Your task to perform on an android device: Clear the shopping cart on costco.com. Search for "logitech g903" on costco.com, select the first entry, and add it to the cart. Image 0: 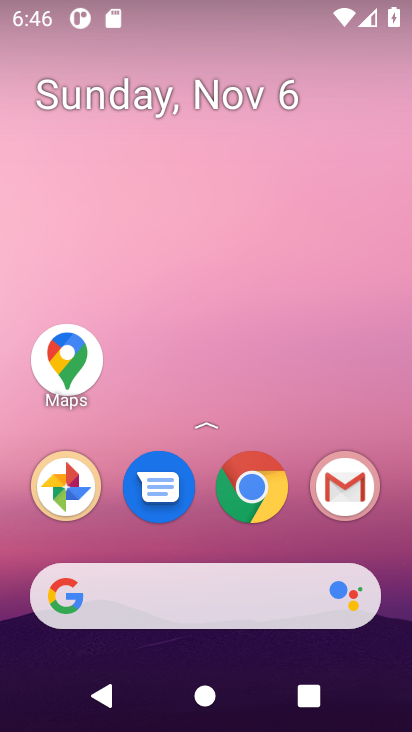
Step 0: click (272, 504)
Your task to perform on an android device: Clear the shopping cart on costco.com. Search for "logitech g903" on costco.com, select the first entry, and add it to the cart. Image 1: 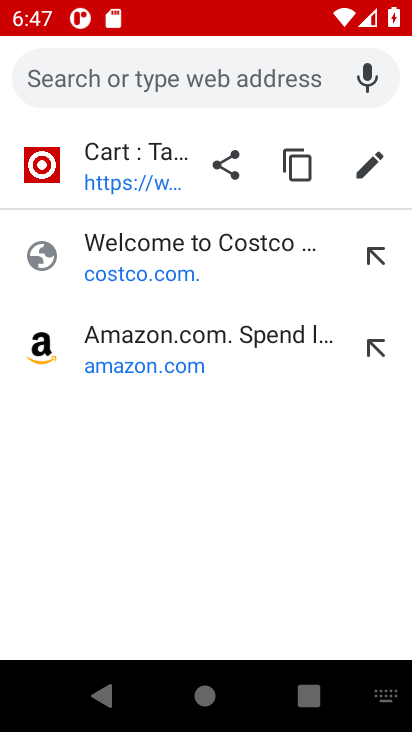
Step 1: click (134, 266)
Your task to perform on an android device: Clear the shopping cart on costco.com. Search for "logitech g903" on costco.com, select the first entry, and add it to the cart. Image 2: 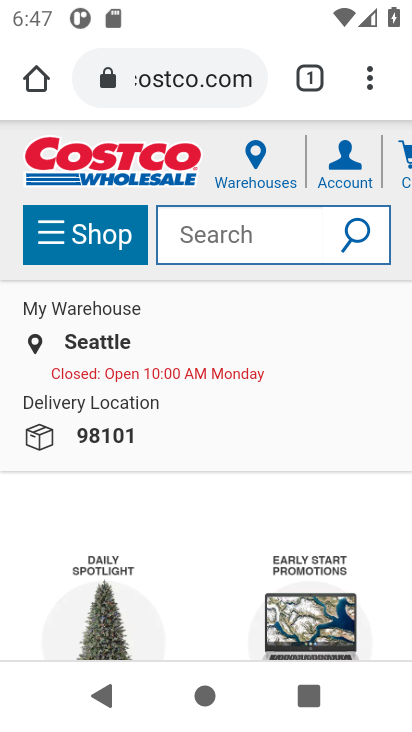
Step 2: click (403, 156)
Your task to perform on an android device: Clear the shopping cart on costco.com. Search for "logitech g903" on costco.com, select the first entry, and add it to the cart. Image 3: 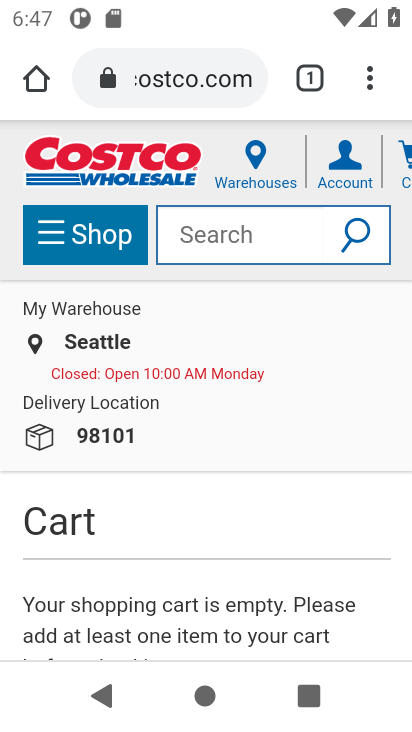
Step 3: drag from (147, 529) to (277, 285)
Your task to perform on an android device: Clear the shopping cart on costco.com. Search for "logitech g903" on costco.com, select the first entry, and add it to the cart. Image 4: 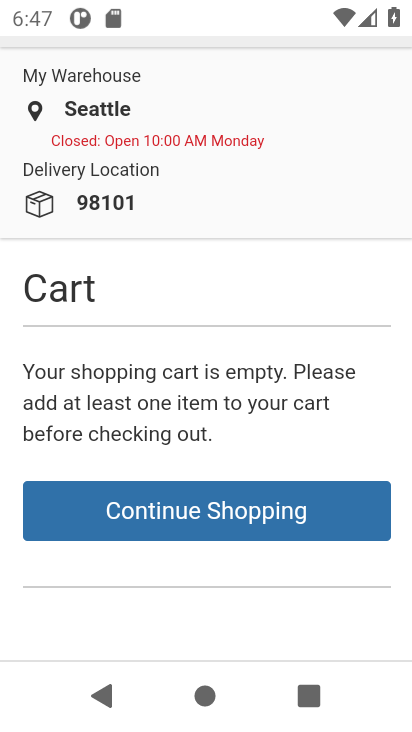
Step 4: drag from (239, 105) to (198, 509)
Your task to perform on an android device: Clear the shopping cart on costco.com. Search for "logitech g903" on costco.com, select the first entry, and add it to the cart. Image 5: 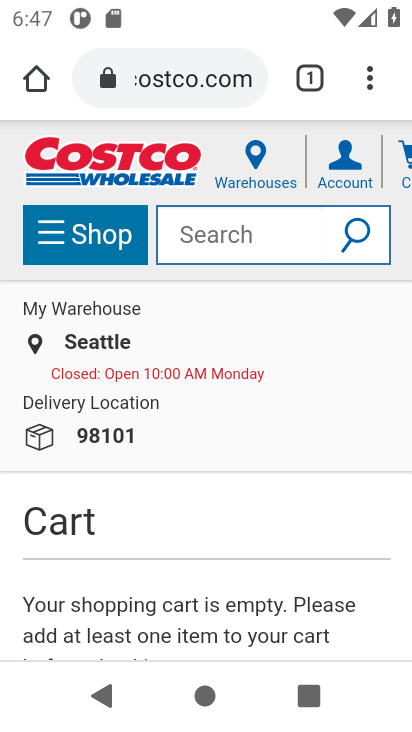
Step 5: click (231, 187)
Your task to perform on an android device: Clear the shopping cart on costco.com. Search for "logitech g903" on costco.com, select the first entry, and add it to the cart. Image 6: 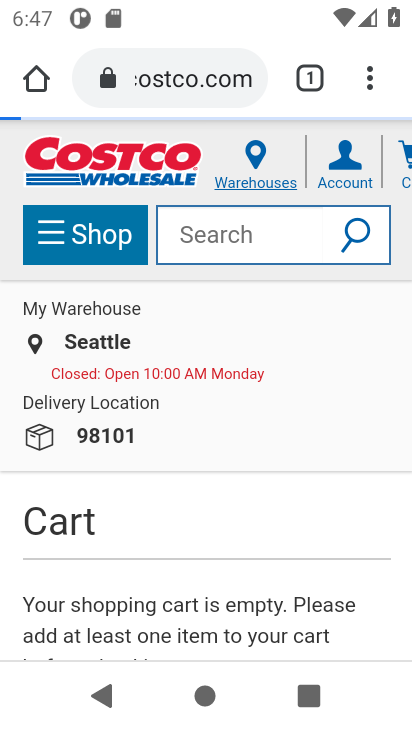
Step 6: click (232, 220)
Your task to perform on an android device: Clear the shopping cart on costco.com. Search for "logitech g903" on costco.com, select the first entry, and add it to the cart. Image 7: 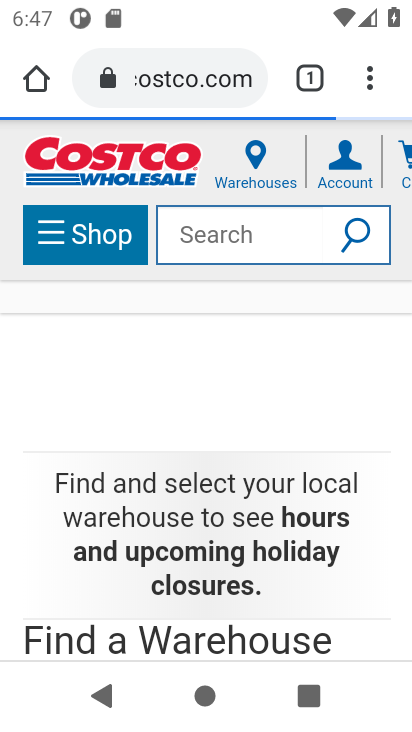
Step 7: press back button
Your task to perform on an android device: Clear the shopping cart on costco.com. Search for "logitech g903" on costco.com, select the first entry, and add it to the cart. Image 8: 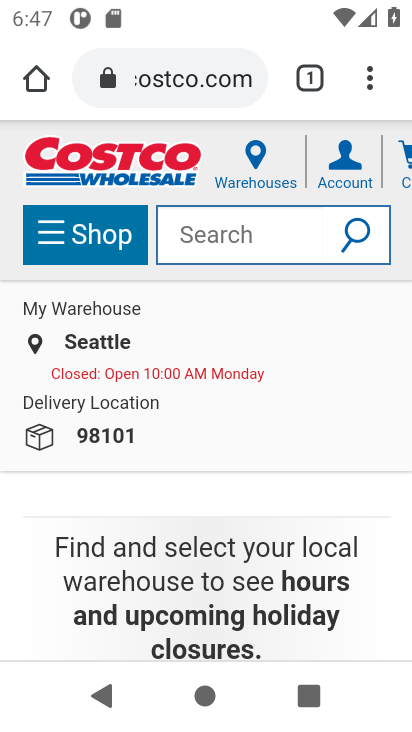
Step 8: click (273, 250)
Your task to perform on an android device: Clear the shopping cart on costco.com. Search for "logitech g903" on costco.com, select the first entry, and add it to the cart. Image 9: 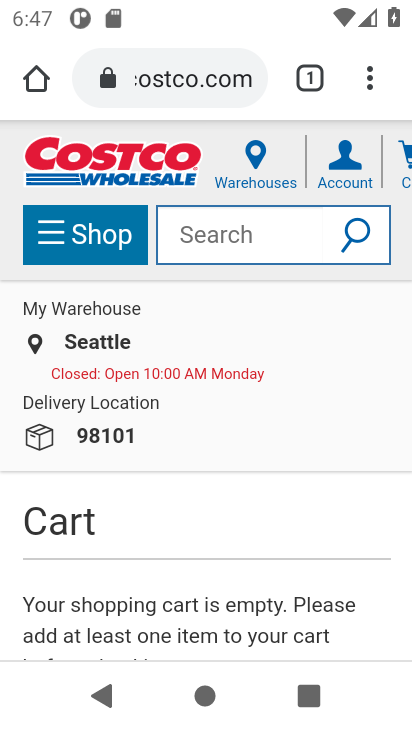
Step 9: click (224, 230)
Your task to perform on an android device: Clear the shopping cart on costco.com. Search for "logitech g903" on costco.com, select the first entry, and add it to the cart. Image 10: 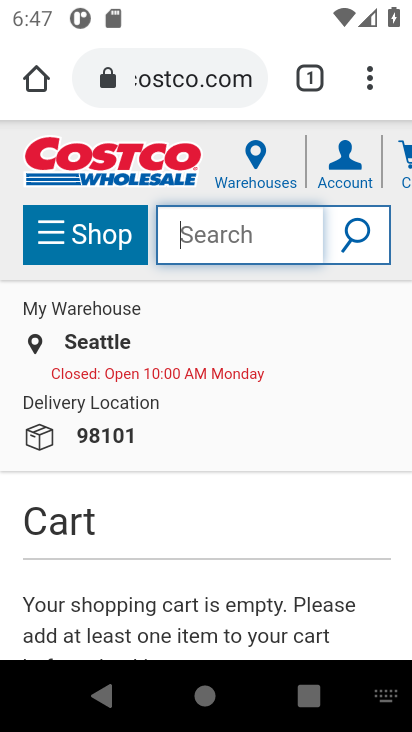
Step 10: type "logitech g903"
Your task to perform on an android device: Clear the shopping cart on costco.com. Search for "logitech g903" on costco.com, select the first entry, and add it to the cart. Image 11: 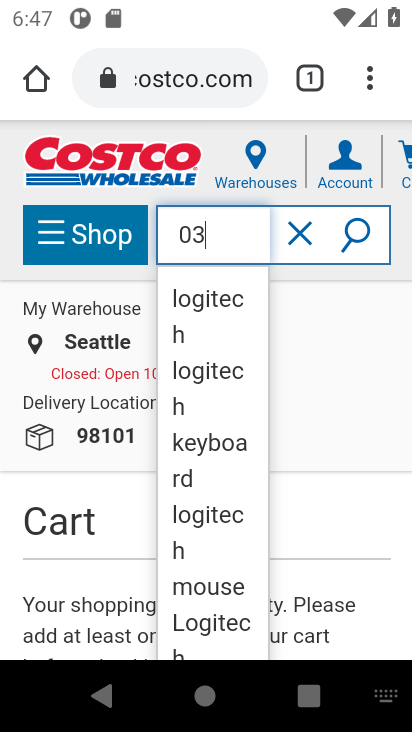
Step 11: click (291, 232)
Your task to perform on an android device: Clear the shopping cart on costco.com. Search for "logitech g903" on costco.com, select the first entry, and add it to the cart. Image 12: 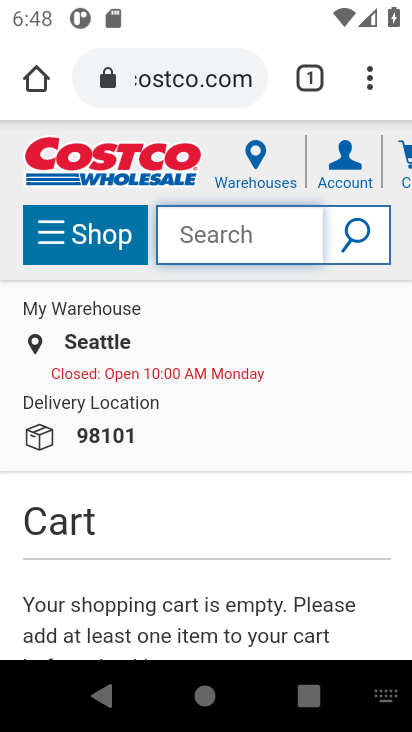
Step 12: type "ogitech g903"
Your task to perform on an android device: Clear the shopping cart on costco.com. Search for "logitech g903" on costco.com, select the first entry, and add it to the cart. Image 13: 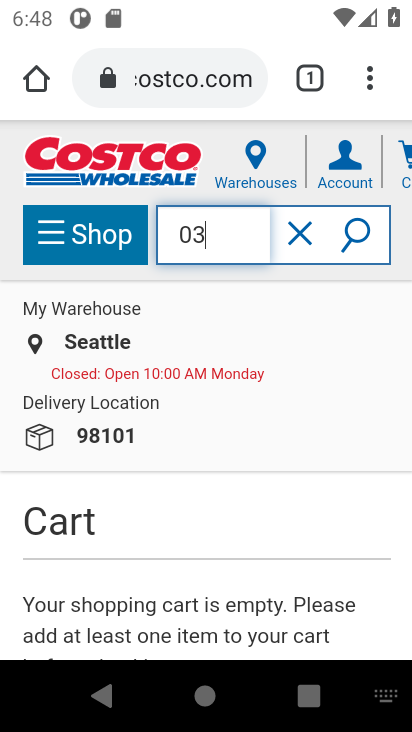
Step 13: type "logitech g903"
Your task to perform on an android device: Clear the shopping cart on costco.com. Search for "logitech g903" on costco.com, select the first entry, and add it to the cart. Image 14: 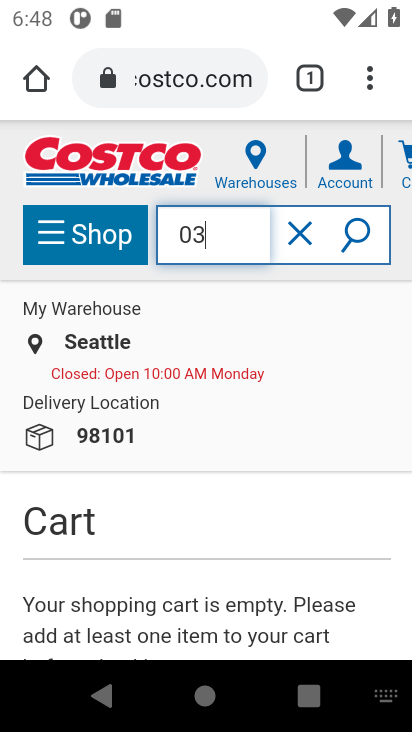
Step 14: click (297, 235)
Your task to perform on an android device: Clear the shopping cart on costco.com. Search for "logitech g903" on costco.com, select the first entry, and add it to the cart. Image 15: 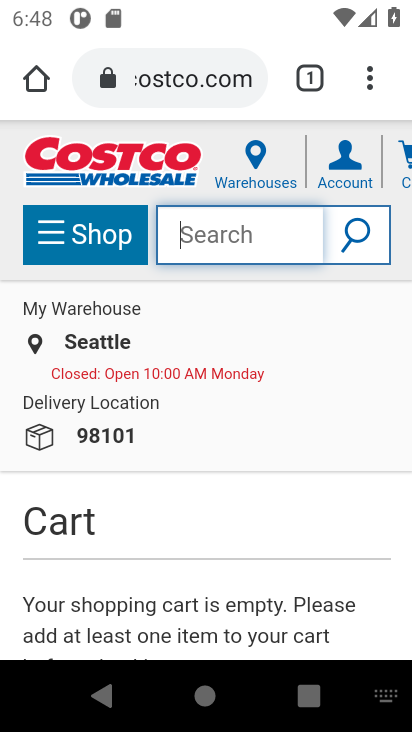
Step 15: type "logitech g903"
Your task to perform on an android device: Clear the shopping cart on costco.com. Search for "logitech g903" on costco.com, select the first entry, and add it to the cart. Image 16: 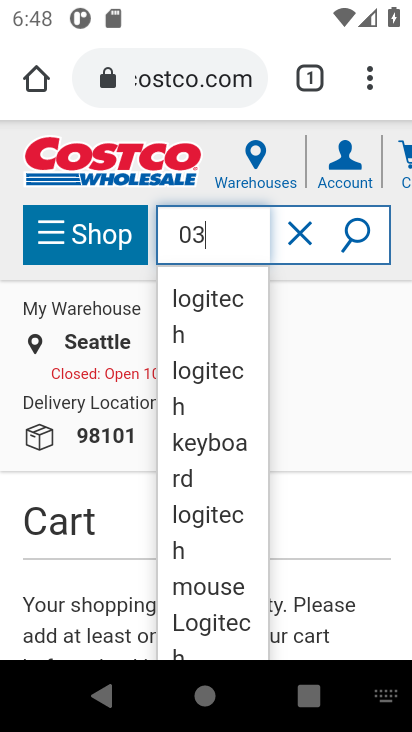
Step 16: click (356, 246)
Your task to perform on an android device: Clear the shopping cart on costco.com. Search for "logitech g903" on costco.com, select the first entry, and add it to the cart. Image 17: 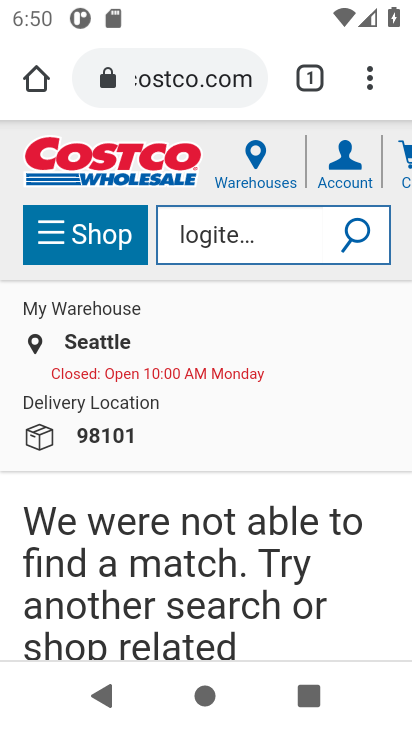
Step 17: task complete